Your task to perform on an android device: open a bookmark in the chrome app Image 0: 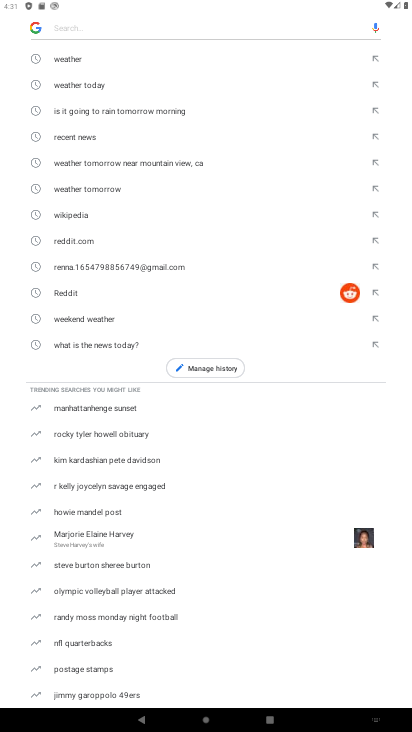
Step 0: press home button
Your task to perform on an android device: open a bookmark in the chrome app Image 1: 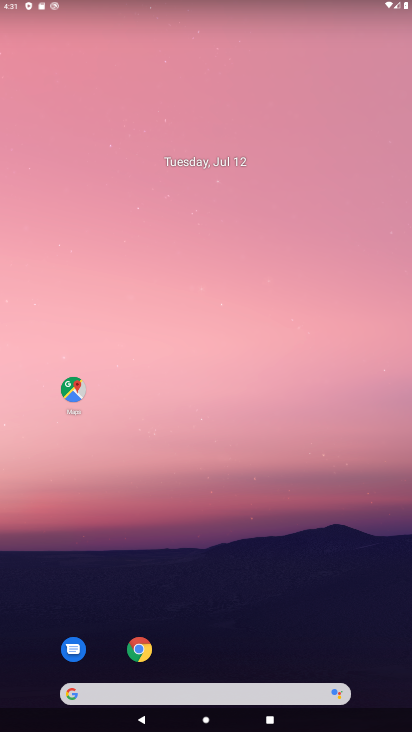
Step 1: click (140, 651)
Your task to perform on an android device: open a bookmark in the chrome app Image 2: 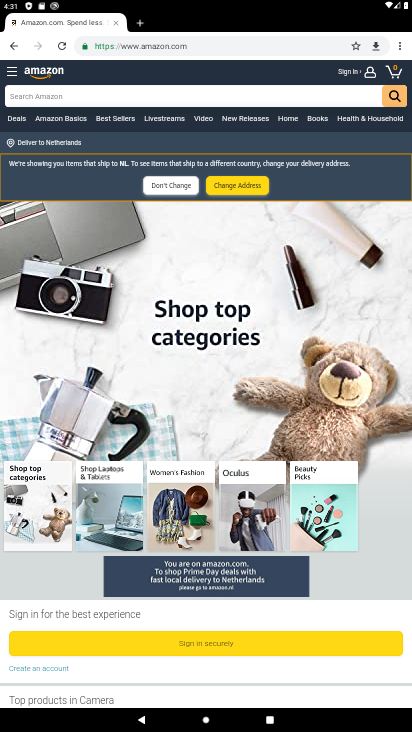
Step 2: click (401, 46)
Your task to perform on an android device: open a bookmark in the chrome app Image 3: 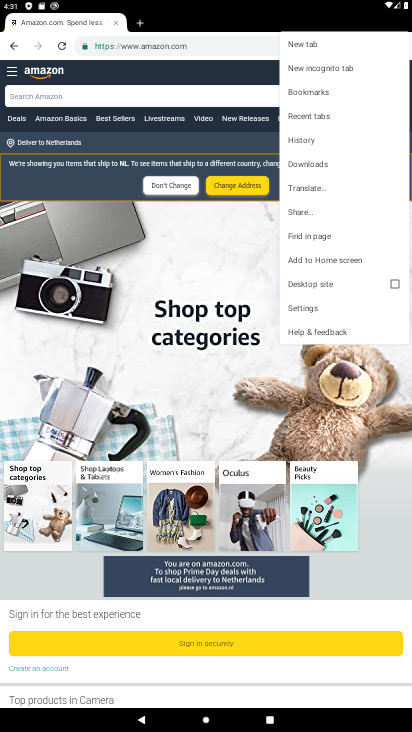
Step 3: click (327, 90)
Your task to perform on an android device: open a bookmark in the chrome app Image 4: 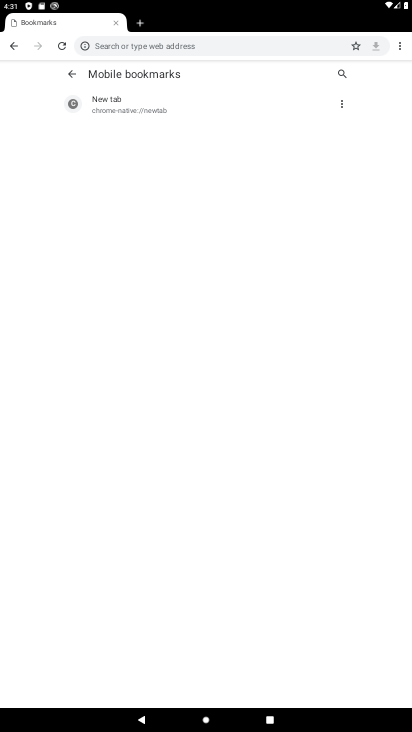
Step 4: task complete